Your task to perform on an android device: delete browsing data in the chrome app Image 0: 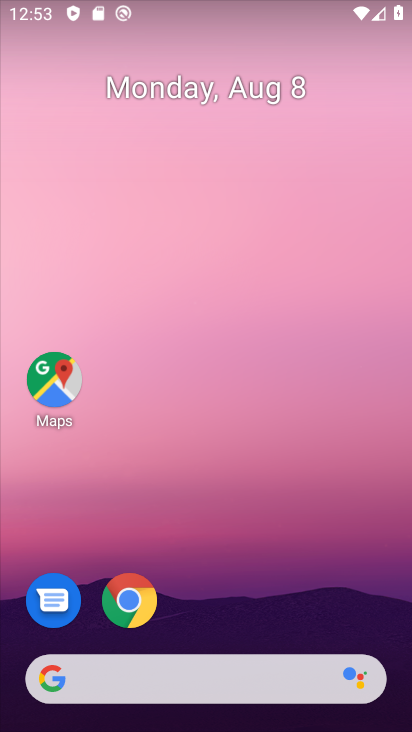
Step 0: press home button
Your task to perform on an android device: delete browsing data in the chrome app Image 1: 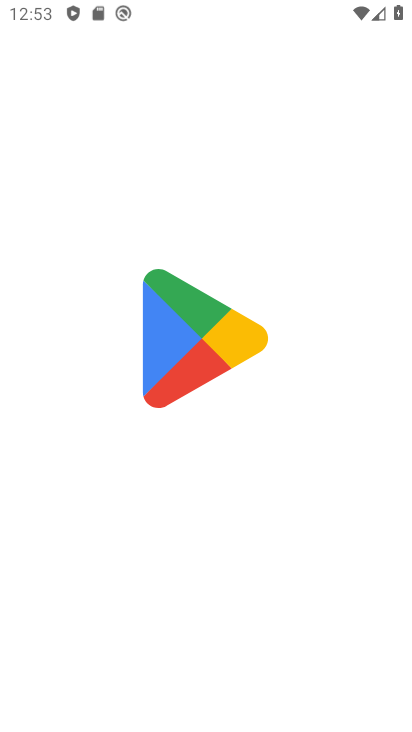
Step 1: drag from (266, 612) to (259, 122)
Your task to perform on an android device: delete browsing data in the chrome app Image 2: 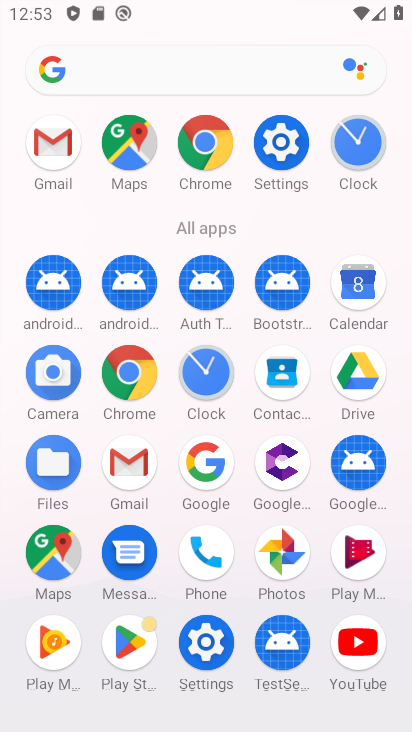
Step 2: click (212, 133)
Your task to perform on an android device: delete browsing data in the chrome app Image 3: 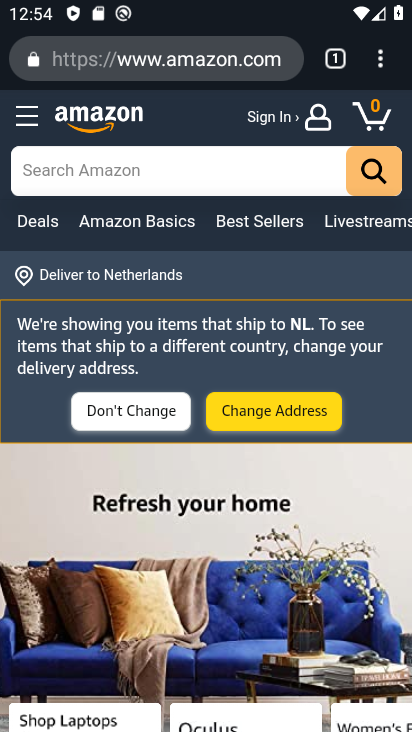
Step 3: drag from (383, 41) to (200, 631)
Your task to perform on an android device: delete browsing data in the chrome app Image 4: 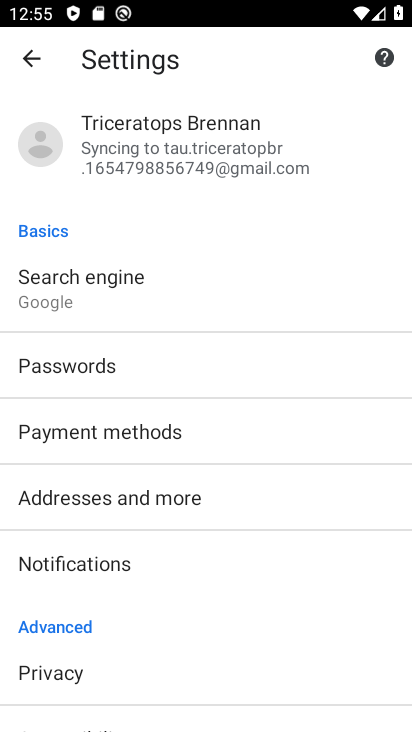
Step 4: click (157, 669)
Your task to perform on an android device: delete browsing data in the chrome app Image 5: 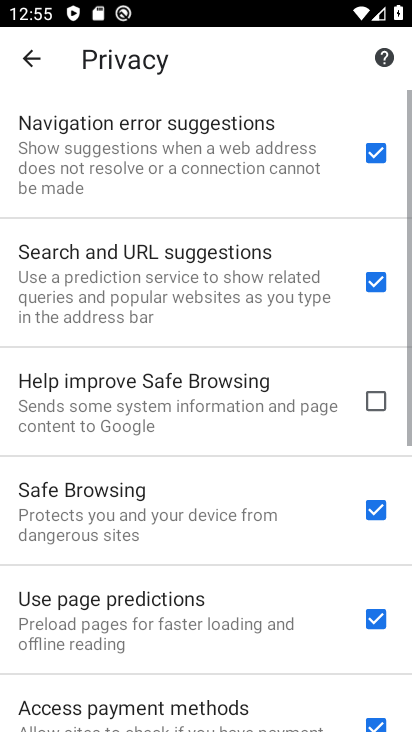
Step 5: drag from (101, 546) to (72, 255)
Your task to perform on an android device: delete browsing data in the chrome app Image 6: 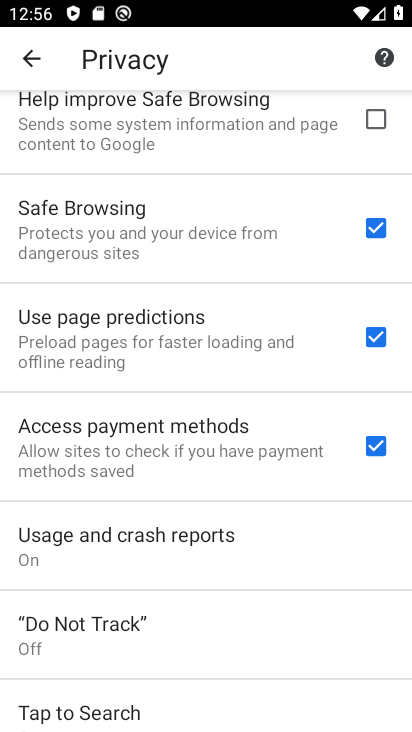
Step 6: drag from (297, 655) to (214, 157)
Your task to perform on an android device: delete browsing data in the chrome app Image 7: 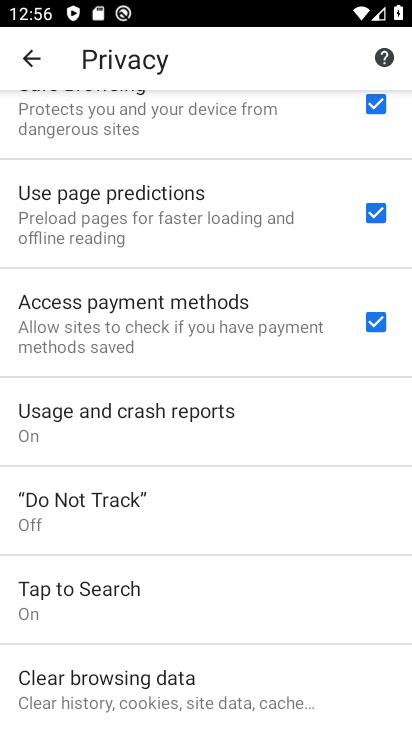
Step 7: click (183, 682)
Your task to perform on an android device: delete browsing data in the chrome app Image 8: 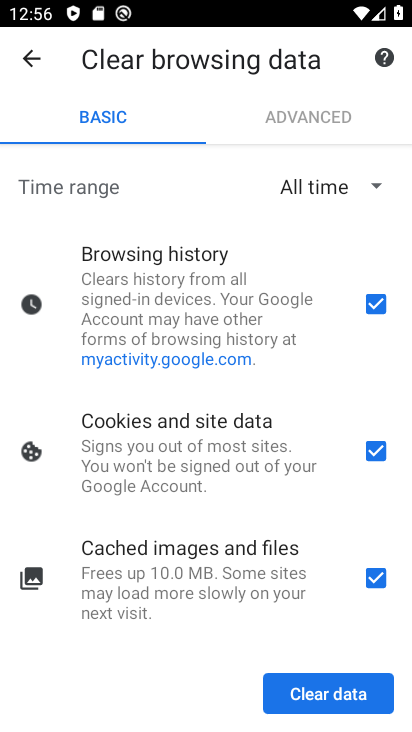
Step 8: click (307, 699)
Your task to perform on an android device: delete browsing data in the chrome app Image 9: 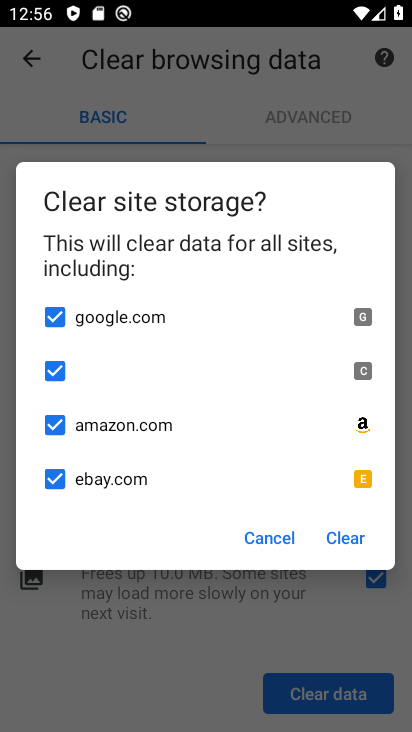
Step 9: click (348, 551)
Your task to perform on an android device: delete browsing data in the chrome app Image 10: 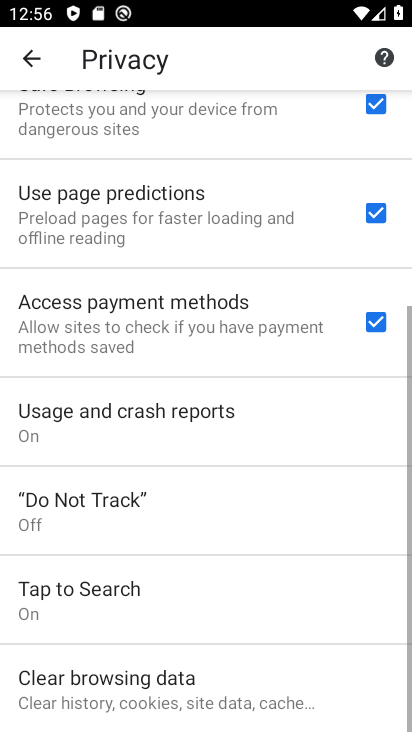
Step 10: task complete